Your task to perform on an android device: Open Chrome and go to settings Image 0: 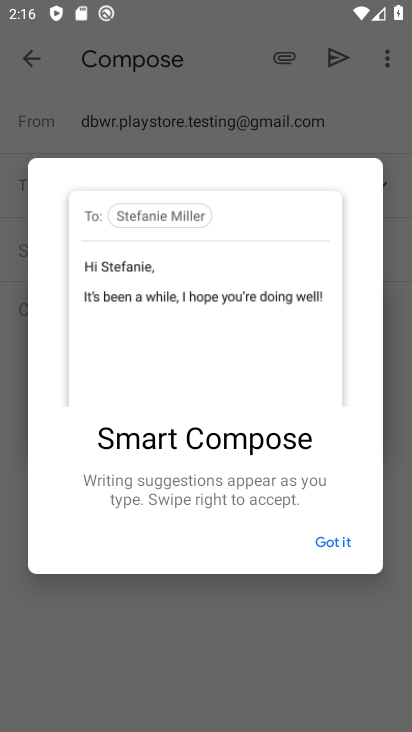
Step 0: press home button
Your task to perform on an android device: Open Chrome and go to settings Image 1: 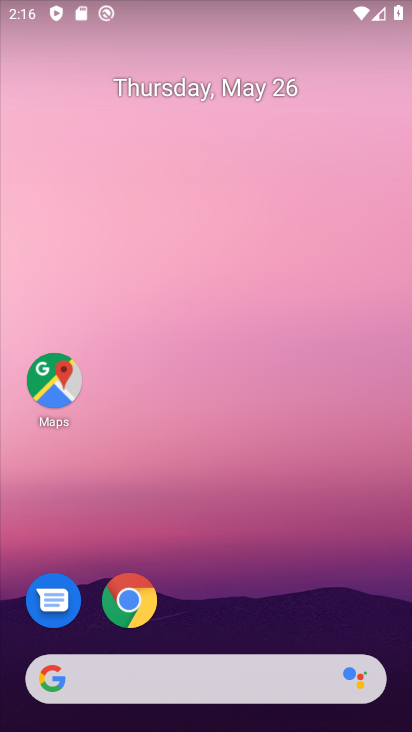
Step 1: click (147, 590)
Your task to perform on an android device: Open Chrome and go to settings Image 2: 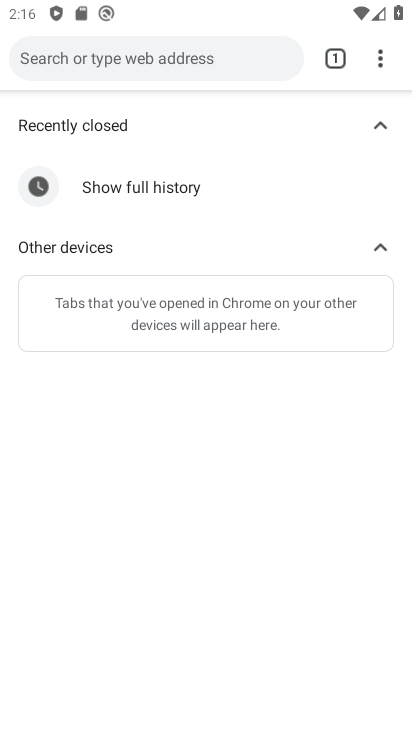
Step 2: click (396, 57)
Your task to perform on an android device: Open Chrome and go to settings Image 3: 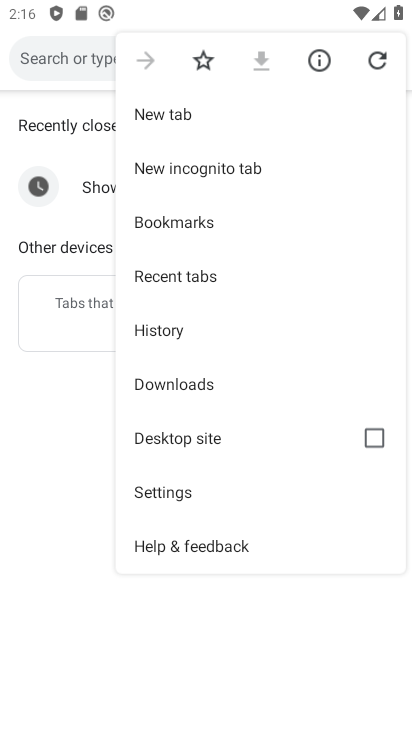
Step 3: click (146, 502)
Your task to perform on an android device: Open Chrome and go to settings Image 4: 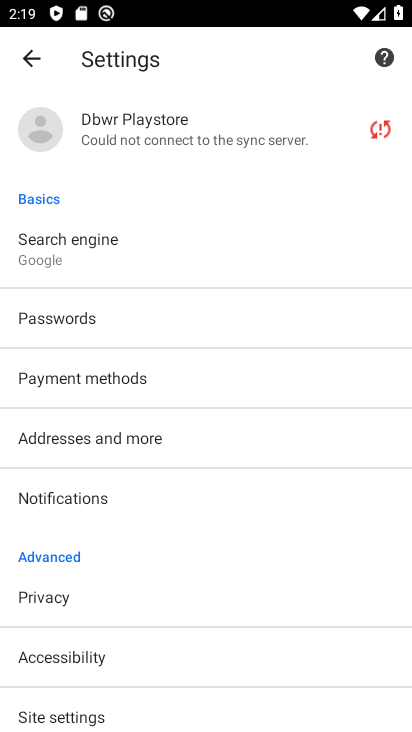
Step 4: task complete